Your task to perform on an android device: Open my contact list Image 0: 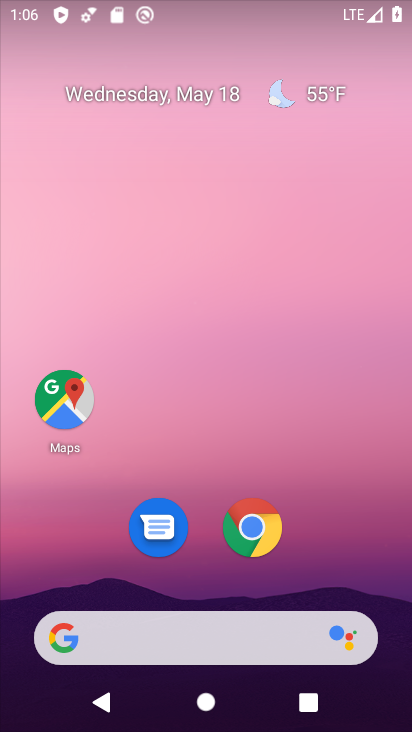
Step 0: drag from (327, 493) to (250, 50)
Your task to perform on an android device: Open my contact list Image 1: 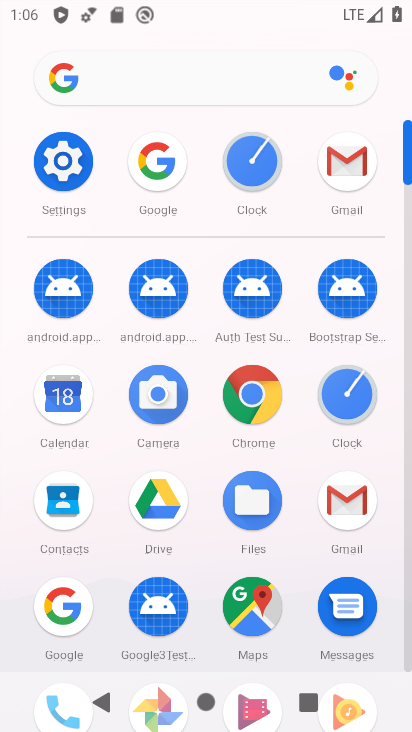
Step 1: click (79, 499)
Your task to perform on an android device: Open my contact list Image 2: 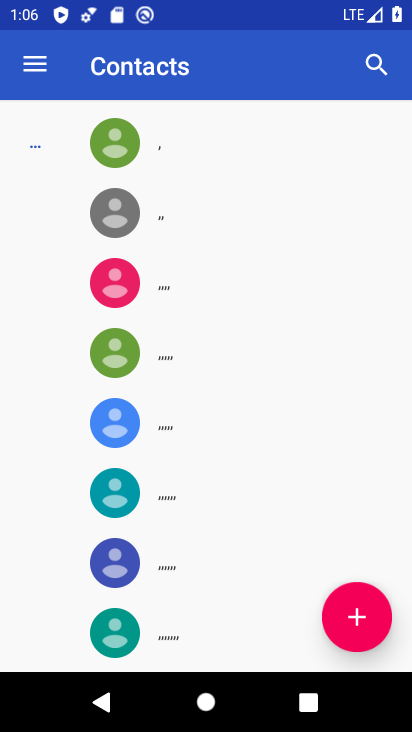
Step 2: task complete